Your task to perform on an android device: check data usage Image 0: 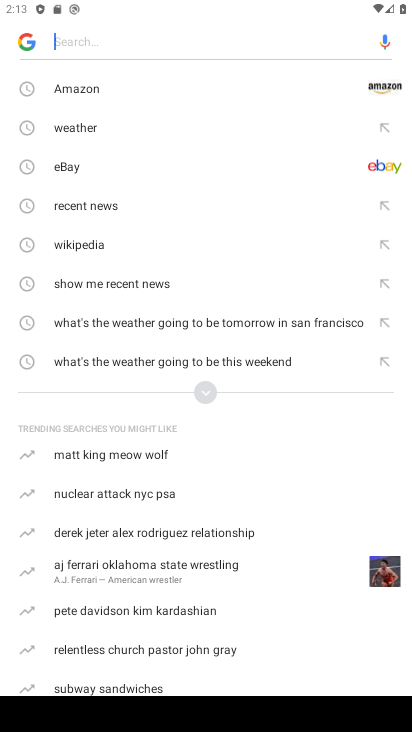
Step 0: press home button
Your task to perform on an android device: check data usage Image 1: 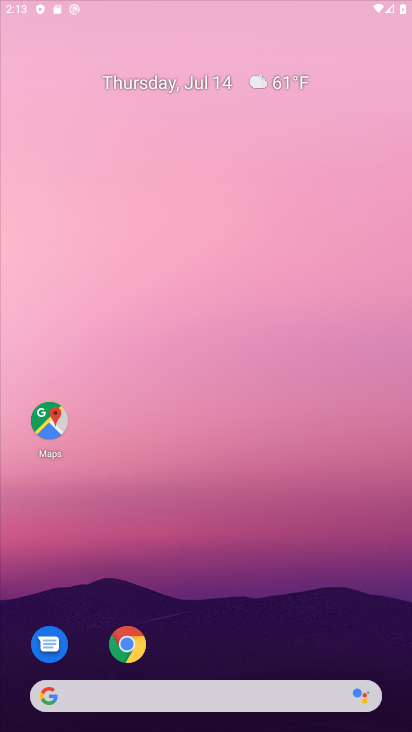
Step 1: drag from (215, 4) to (261, 236)
Your task to perform on an android device: check data usage Image 2: 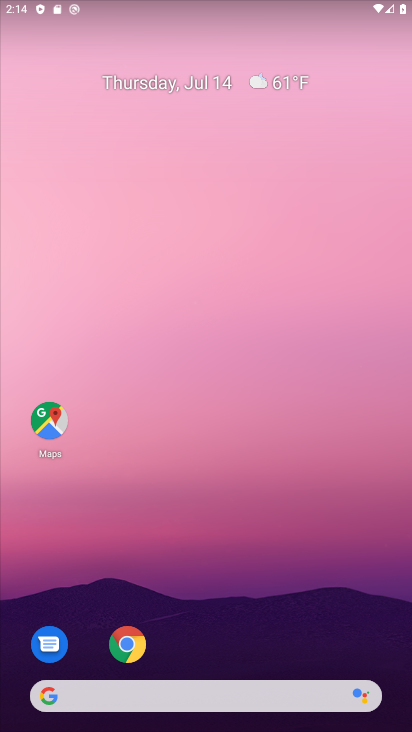
Step 2: drag from (290, 0) to (366, 682)
Your task to perform on an android device: check data usage Image 3: 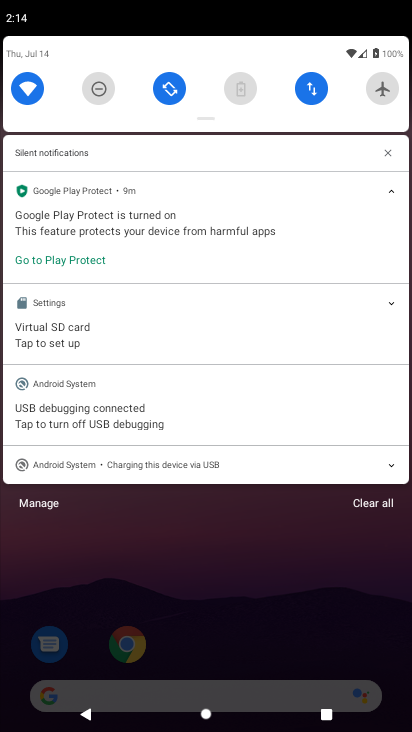
Step 3: click (317, 94)
Your task to perform on an android device: check data usage Image 4: 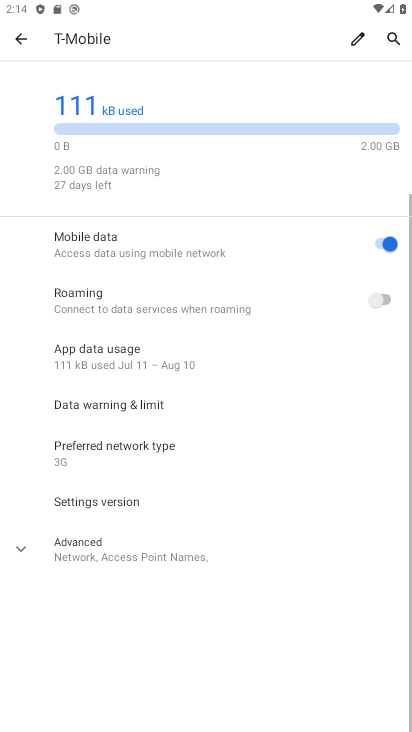
Step 4: task complete